Your task to perform on an android device: refresh tabs in the chrome app Image 0: 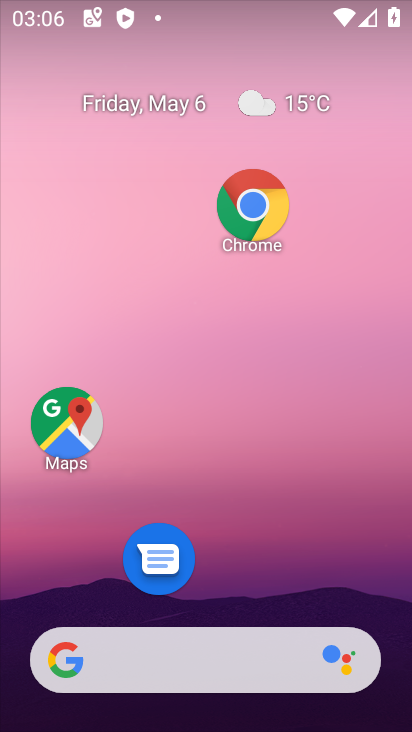
Step 0: click (253, 195)
Your task to perform on an android device: refresh tabs in the chrome app Image 1: 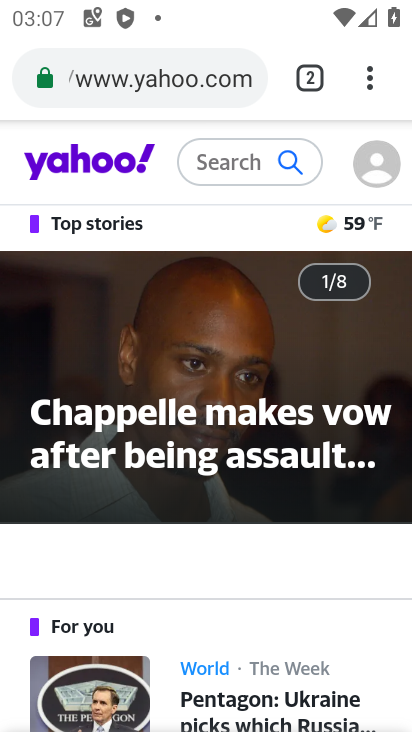
Step 1: click (364, 83)
Your task to perform on an android device: refresh tabs in the chrome app Image 2: 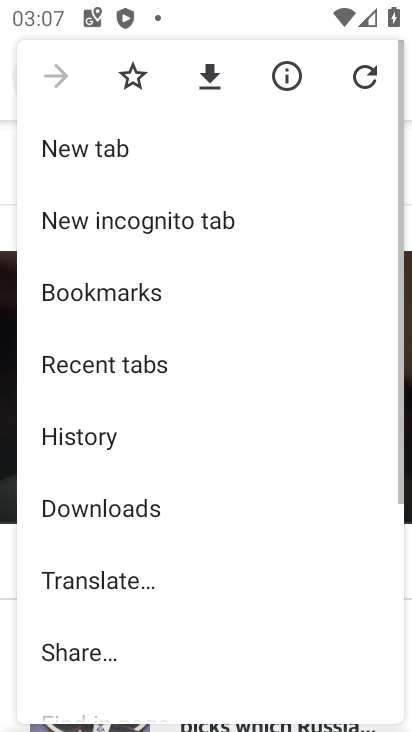
Step 2: click (364, 83)
Your task to perform on an android device: refresh tabs in the chrome app Image 3: 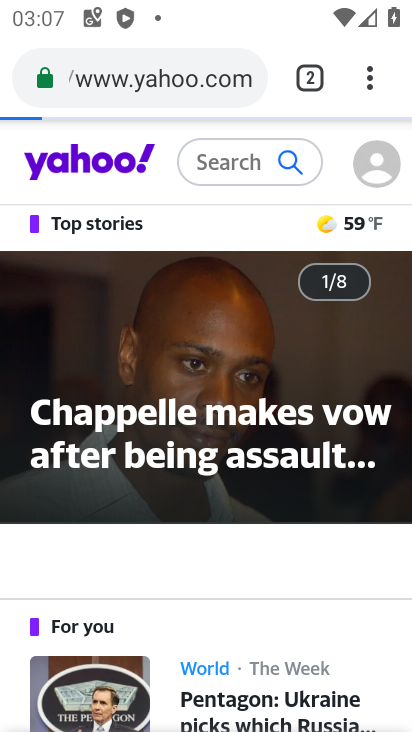
Step 3: task complete